Your task to perform on an android device: Go to notification settings Image 0: 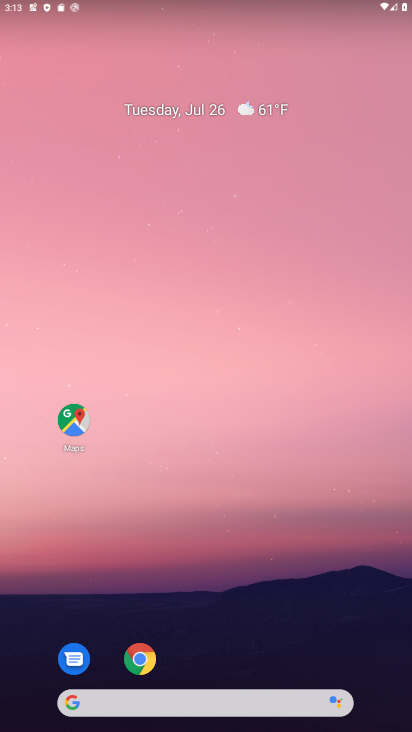
Step 0: drag from (190, 530) to (194, 284)
Your task to perform on an android device: Go to notification settings Image 1: 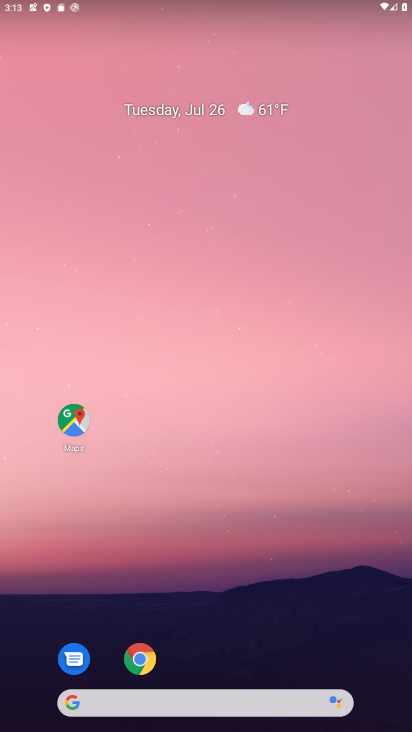
Step 1: drag from (184, 371) to (187, 100)
Your task to perform on an android device: Go to notification settings Image 2: 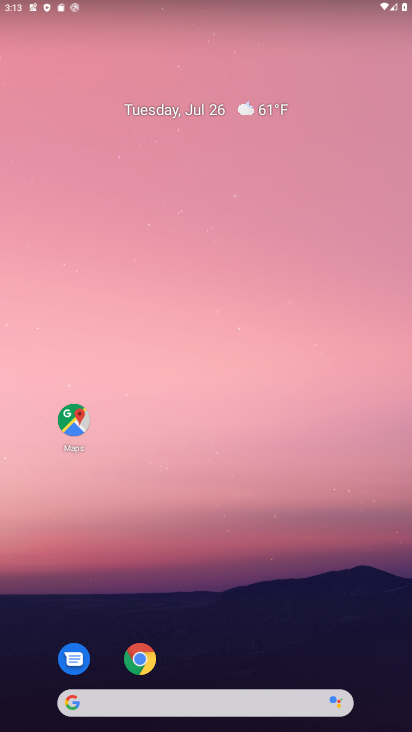
Step 2: drag from (164, 539) to (171, 112)
Your task to perform on an android device: Go to notification settings Image 3: 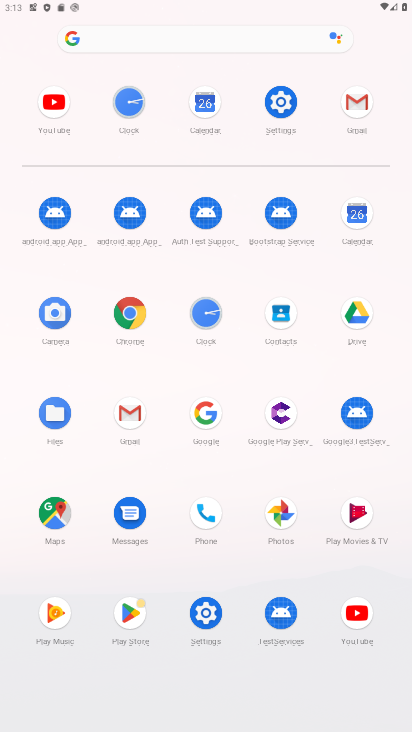
Step 3: click (277, 101)
Your task to perform on an android device: Go to notification settings Image 4: 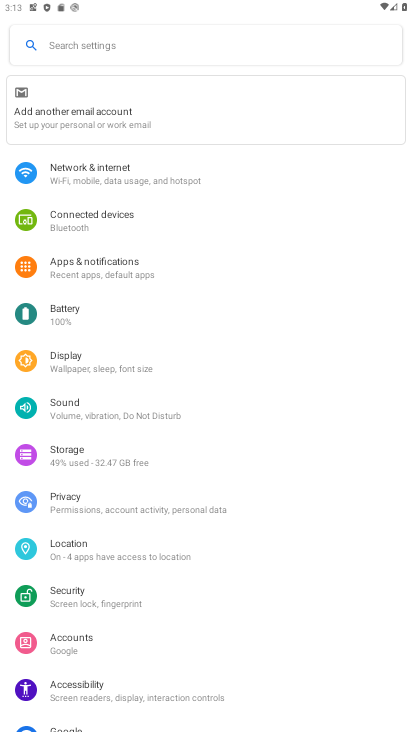
Step 4: click (86, 286)
Your task to perform on an android device: Go to notification settings Image 5: 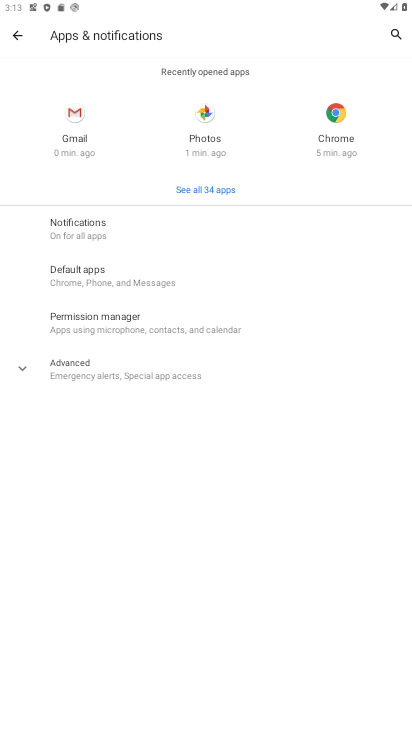
Step 5: click (80, 216)
Your task to perform on an android device: Go to notification settings Image 6: 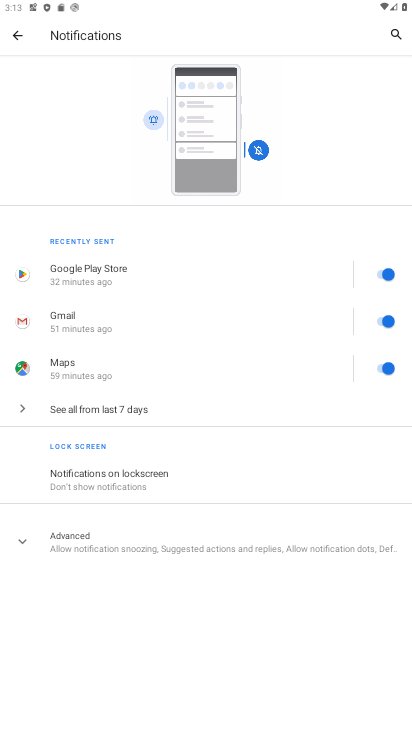
Step 6: click (89, 541)
Your task to perform on an android device: Go to notification settings Image 7: 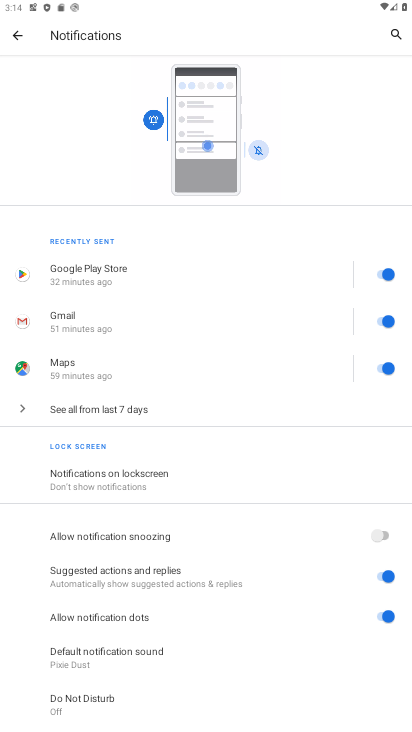
Step 7: task complete